Your task to perform on an android device: change the clock display to show seconds Image 0: 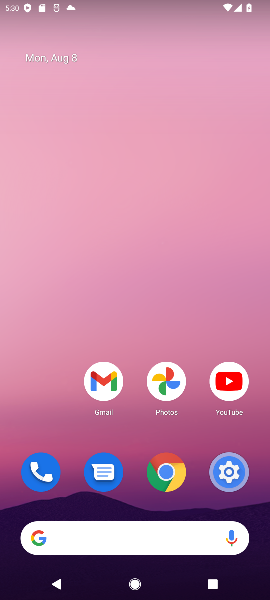
Step 0: press home button
Your task to perform on an android device: change the clock display to show seconds Image 1: 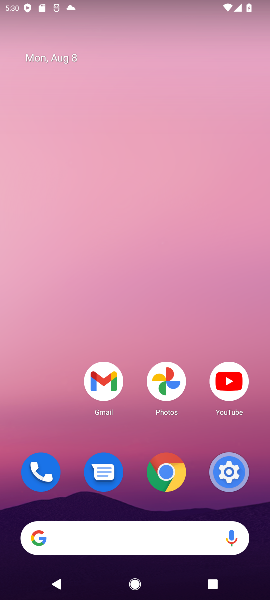
Step 1: drag from (142, 505) to (174, 77)
Your task to perform on an android device: change the clock display to show seconds Image 2: 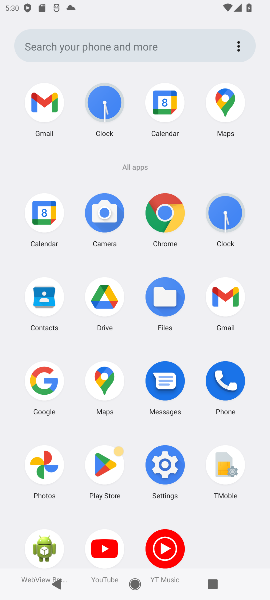
Step 2: click (101, 101)
Your task to perform on an android device: change the clock display to show seconds Image 3: 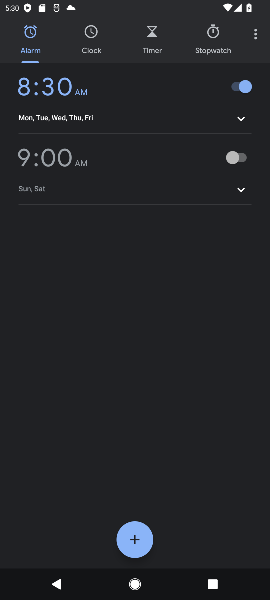
Step 3: click (259, 37)
Your task to perform on an android device: change the clock display to show seconds Image 4: 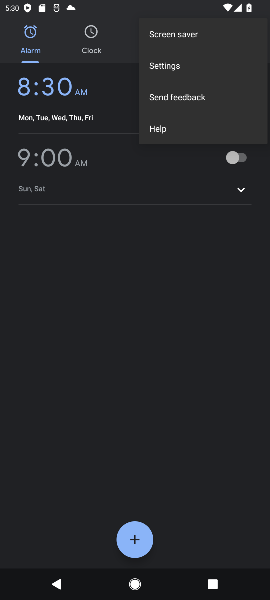
Step 4: click (158, 70)
Your task to perform on an android device: change the clock display to show seconds Image 5: 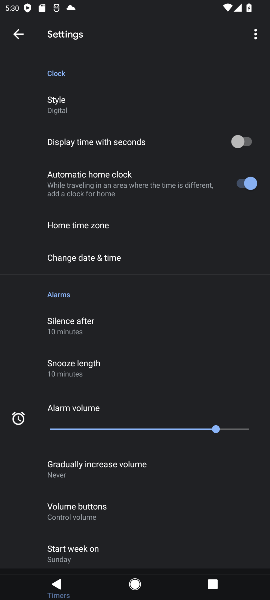
Step 5: click (239, 142)
Your task to perform on an android device: change the clock display to show seconds Image 6: 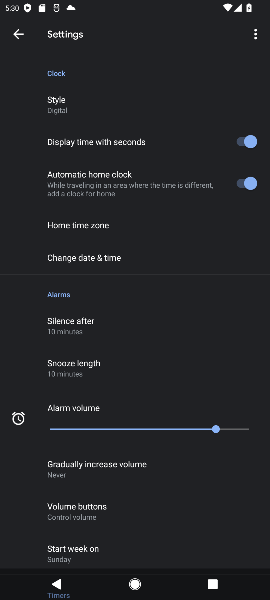
Step 6: task complete